Your task to perform on an android device: Do I have any events today? Image 0: 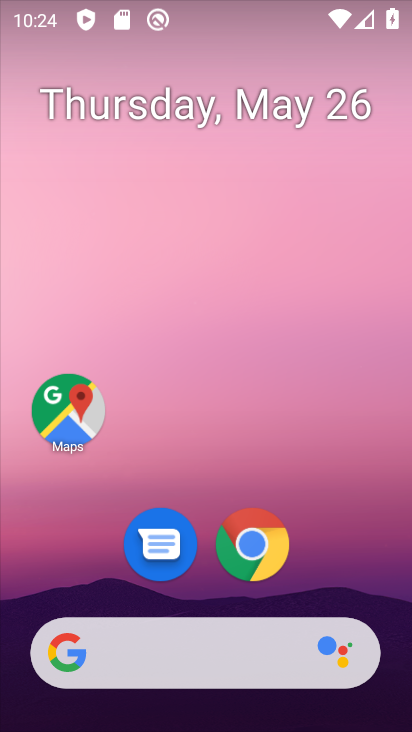
Step 0: drag from (346, 534) to (268, 97)
Your task to perform on an android device: Do I have any events today? Image 1: 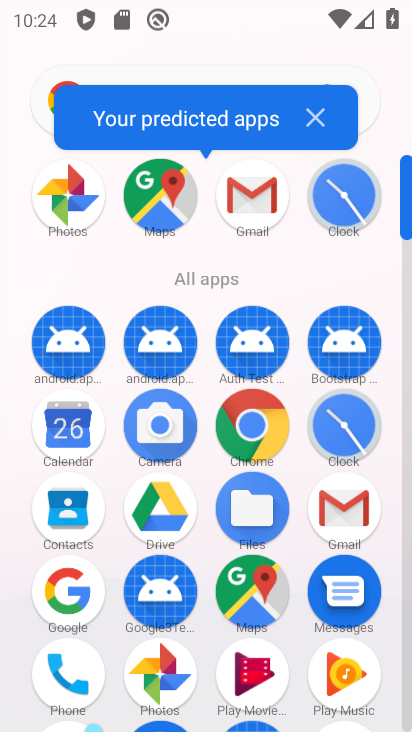
Step 1: drag from (20, 548) to (18, 259)
Your task to perform on an android device: Do I have any events today? Image 2: 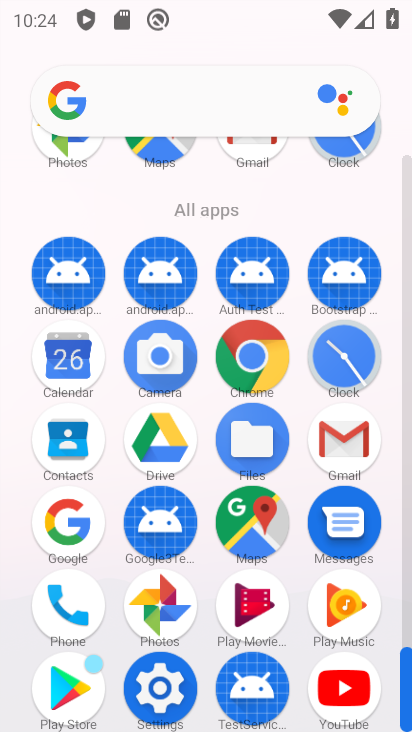
Step 2: click (66, 348)
Your task to perform on an android device: Do I have any events today? Image 3: 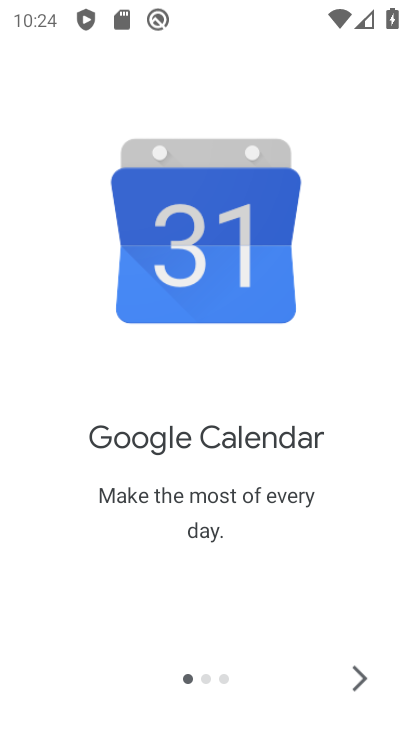
Step 3: click (364, 680)
Your task to perform on an android device: Do I have any events today? Image 4: 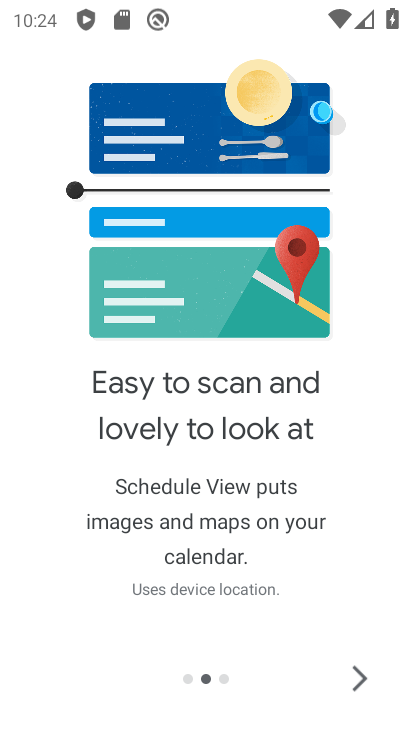
Step 4: click (355, 680)
Your task to perform on an android device: Do I have any events today? Image 5: 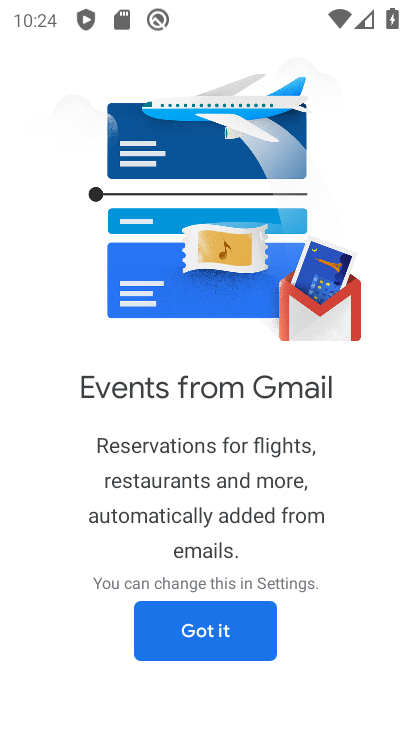
Step 5: click (235, 644)
Your task to perform on an android device: Do I have any events today? Image 6: 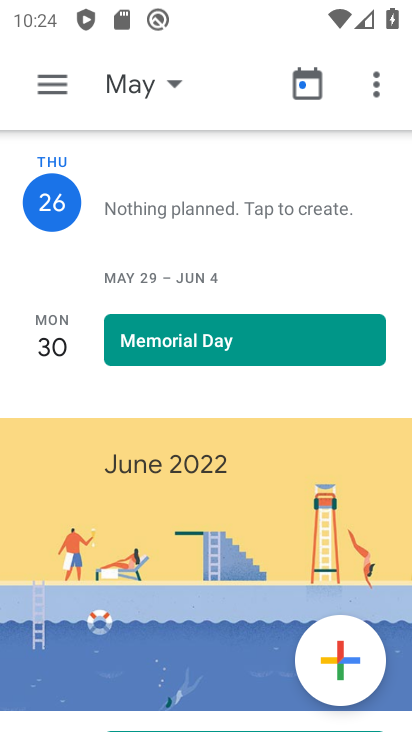
Step 6: click (311, 87)
Your task to perform on an android device: Do I have any events today? Image 7: 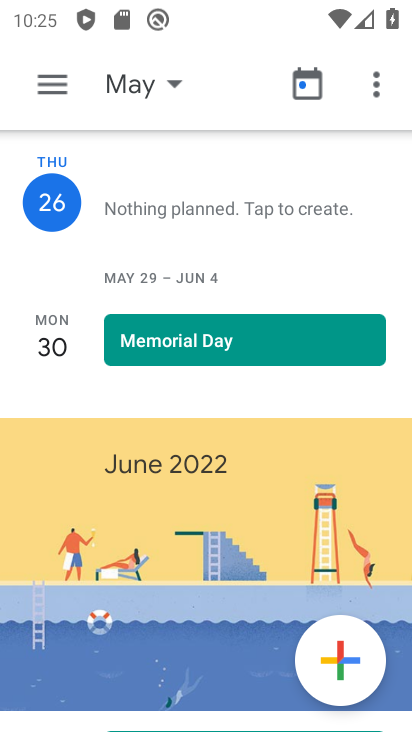
Step 7: click (136, 87)
Your task to perform on an android device: Do I have any events today? Image 8: 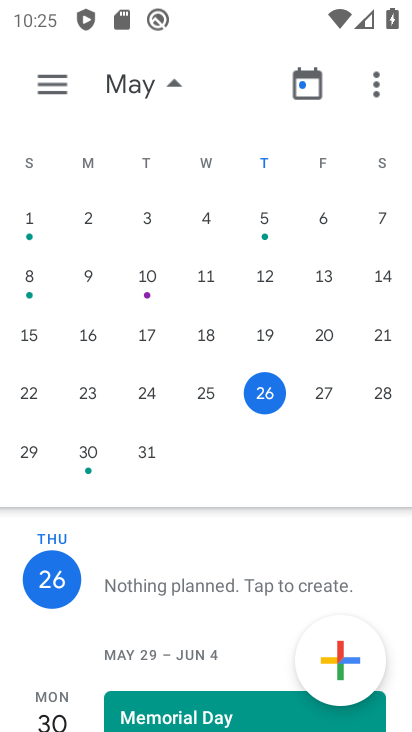
Step 8: click (270, 395)
Your task to perform on an android device: Do I have any events today? Image 9: 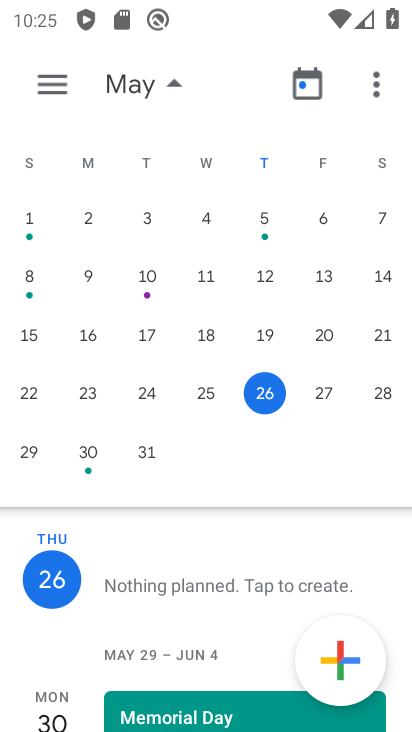
Step 9: click (270, 395)
Your task to perform on an android device: Do I have any events today? Image 10: 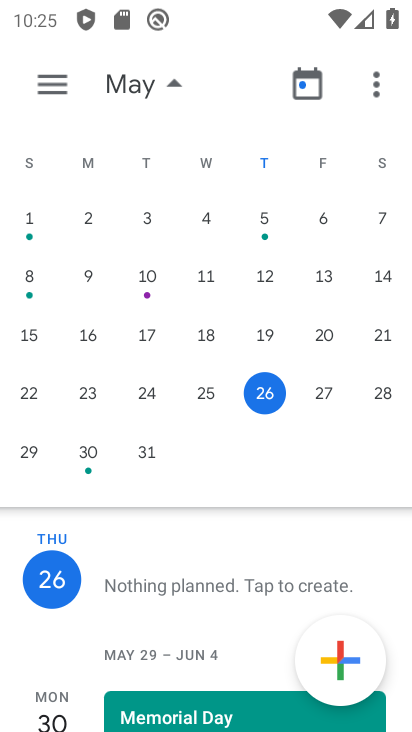
Step 10: click (49, 65)
Your task to perform on an android device: Do I have any events today? Image 11: 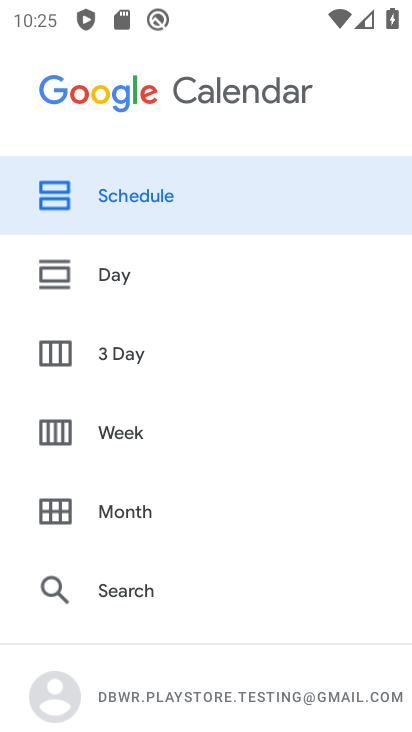
Step 11: click (144, 266)
Your task to perform on an android device: Do I have any events today? Image 12: 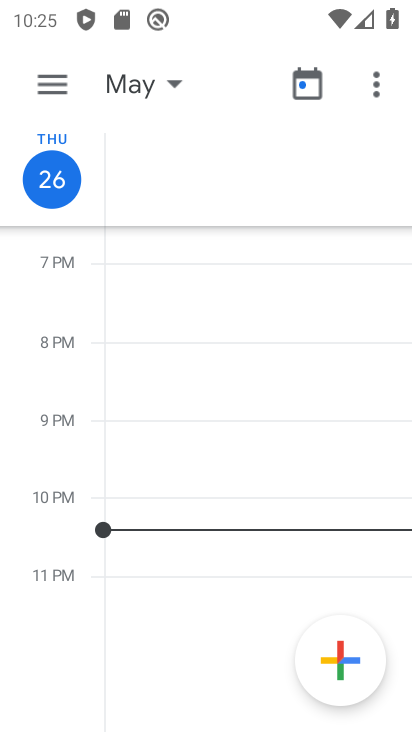
Step 12: task complete